Your task to perform on an android device: check google app version Image 0: 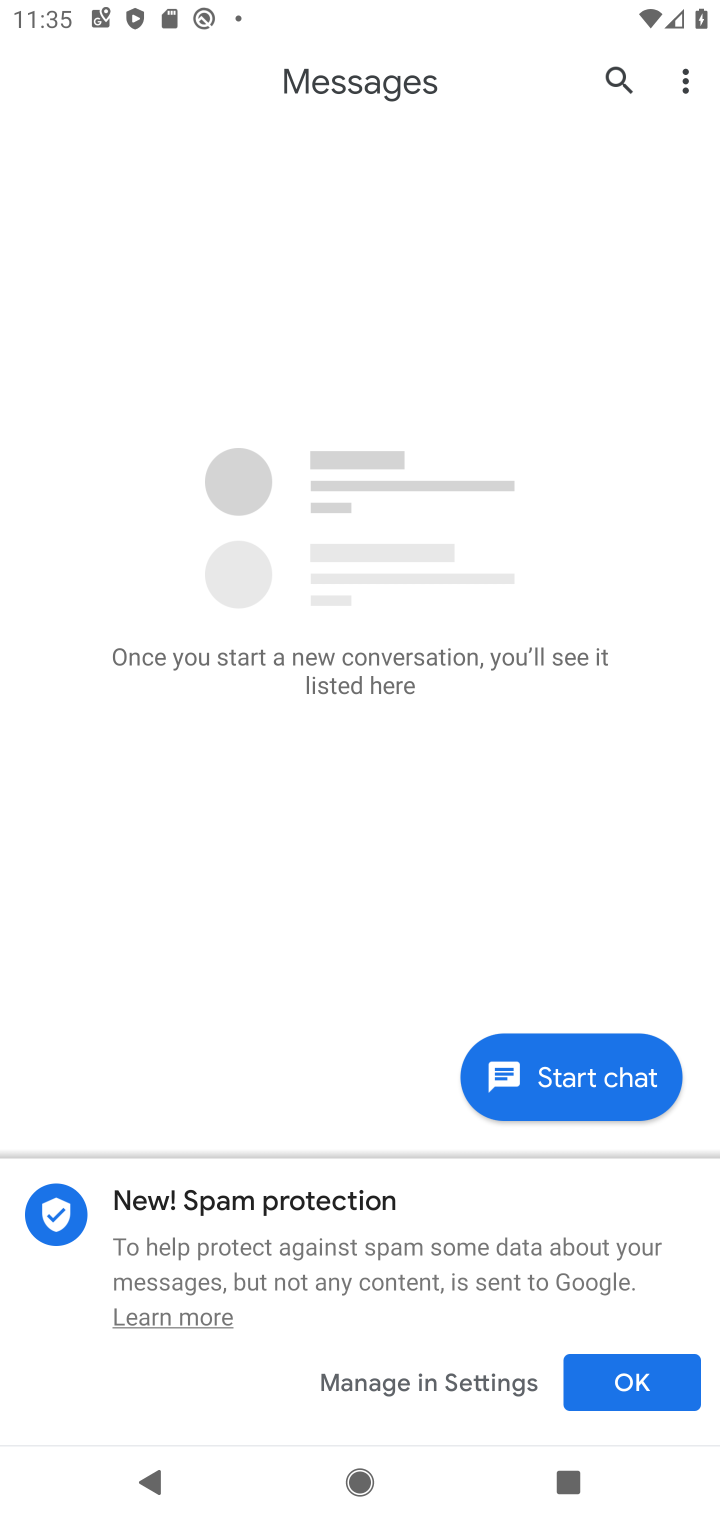
Step 0: press back button
Your task to perform on an android device: check google app version Image 1: 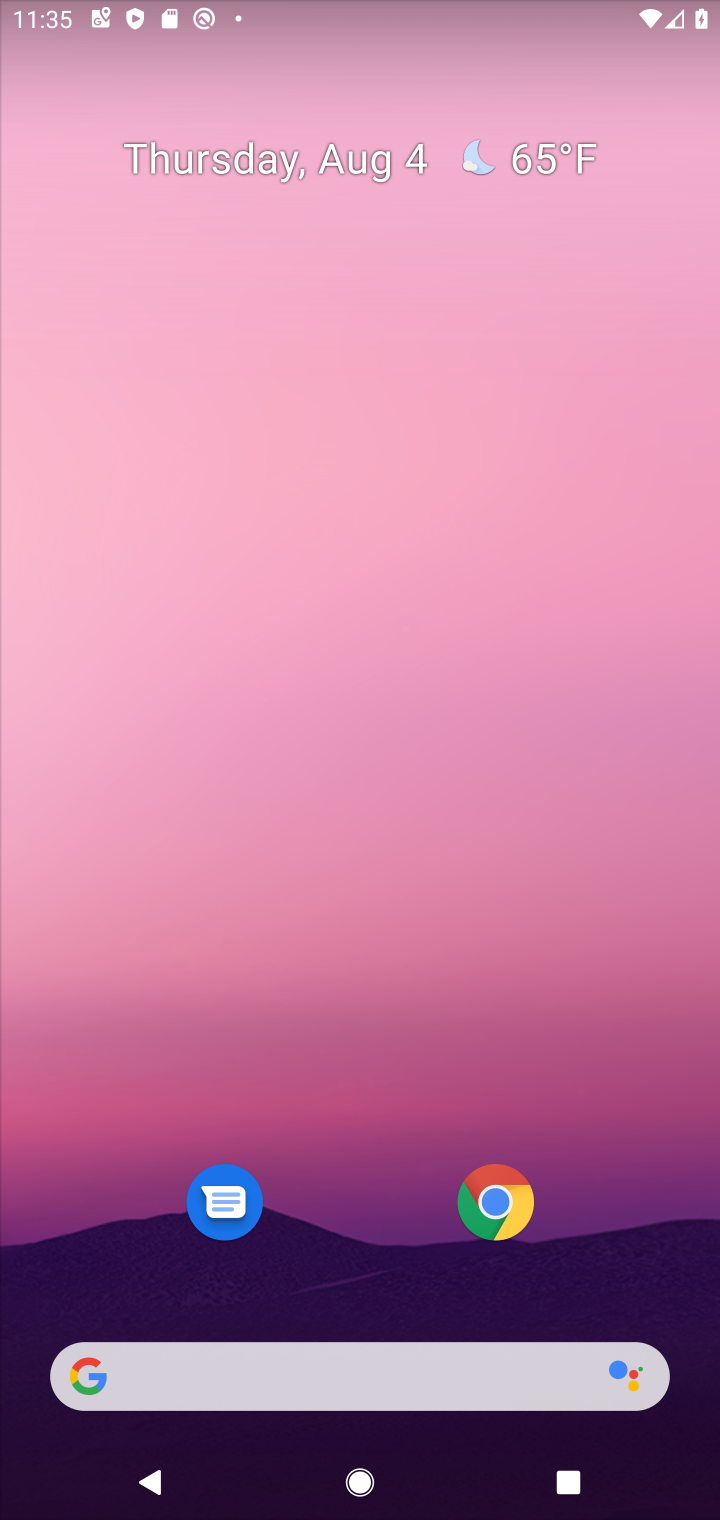
Step 1: press back button
Your task to perform on an android device: check google app version Image 2: 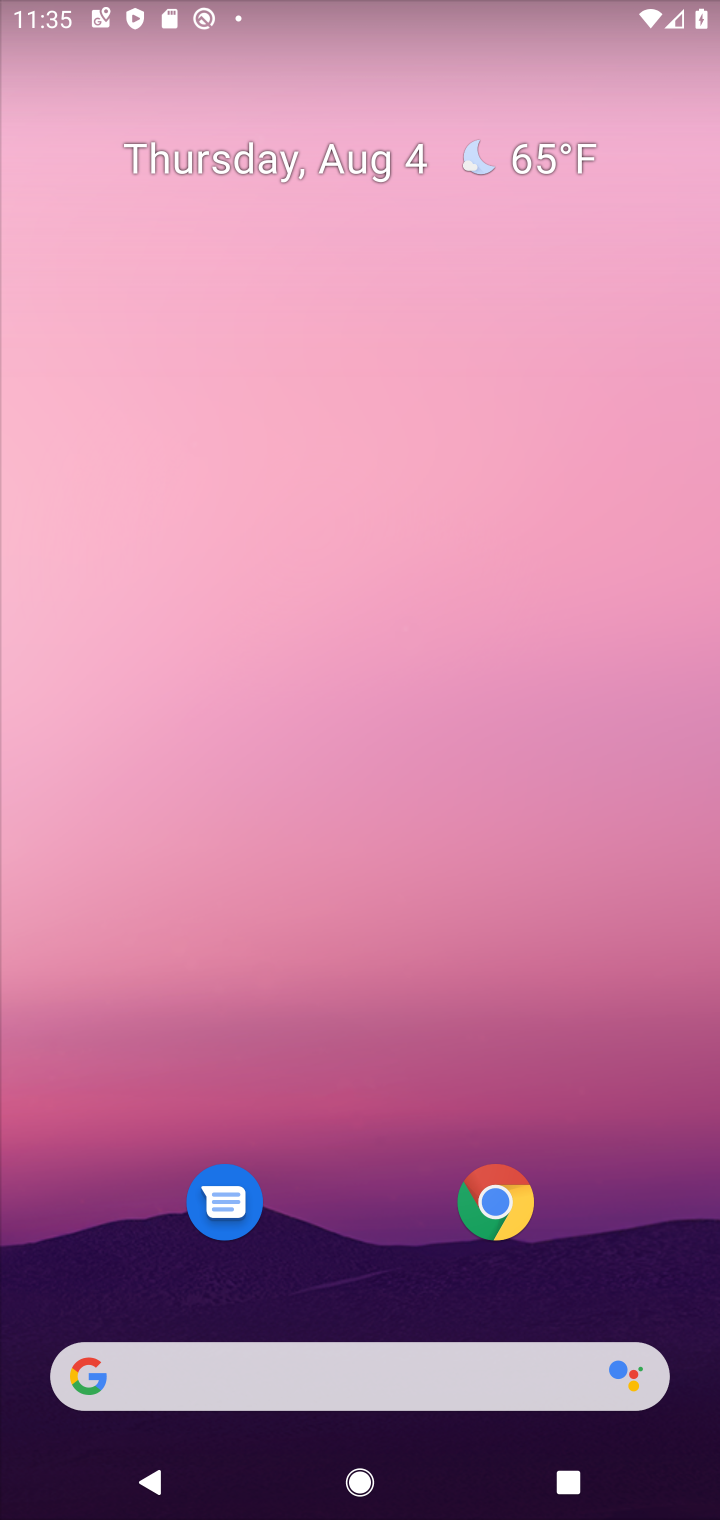
Step 2: drag from (362, 978) to (353, 39)
Your task to perform on an android device: check google app version Image 3: 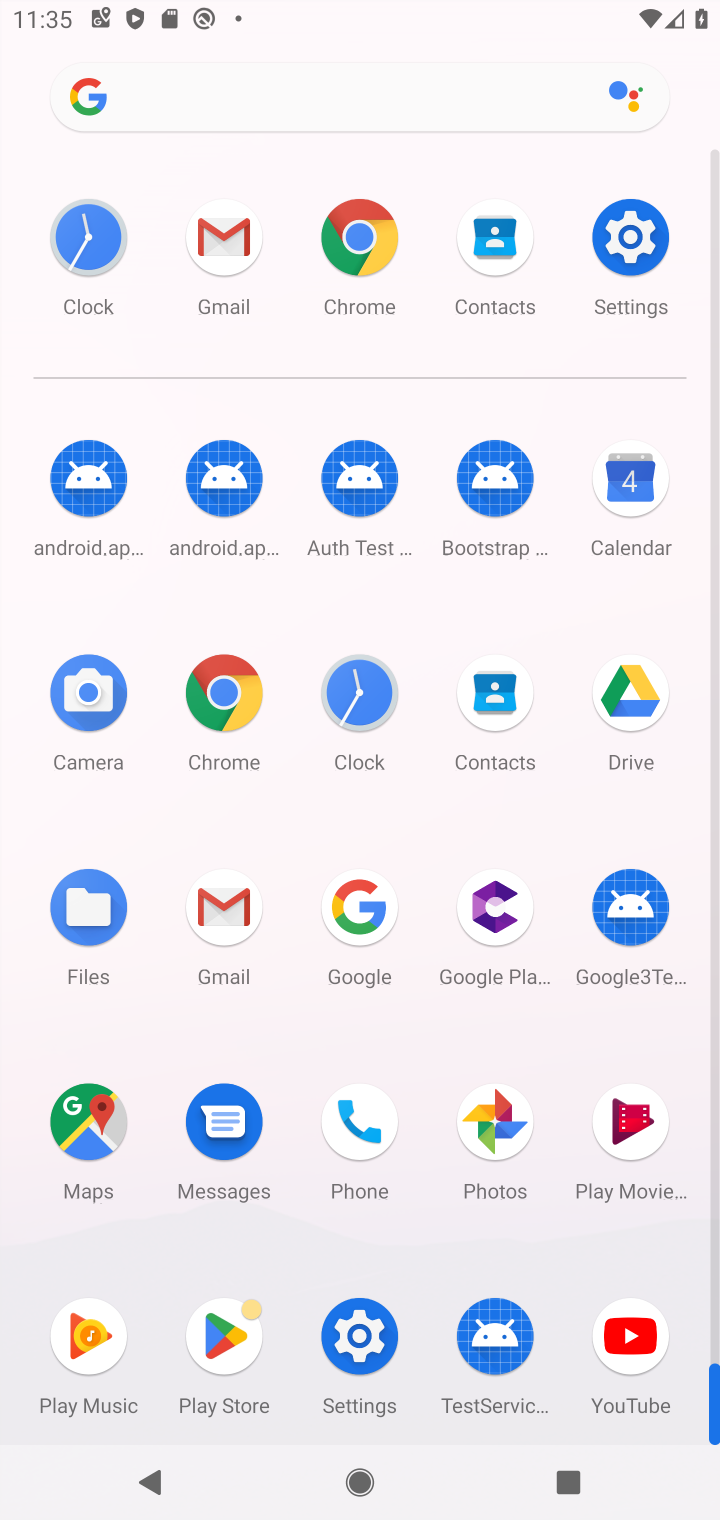
Step 3: click (351, 896)
Your task to perform on an android device: check google app version Image 4: 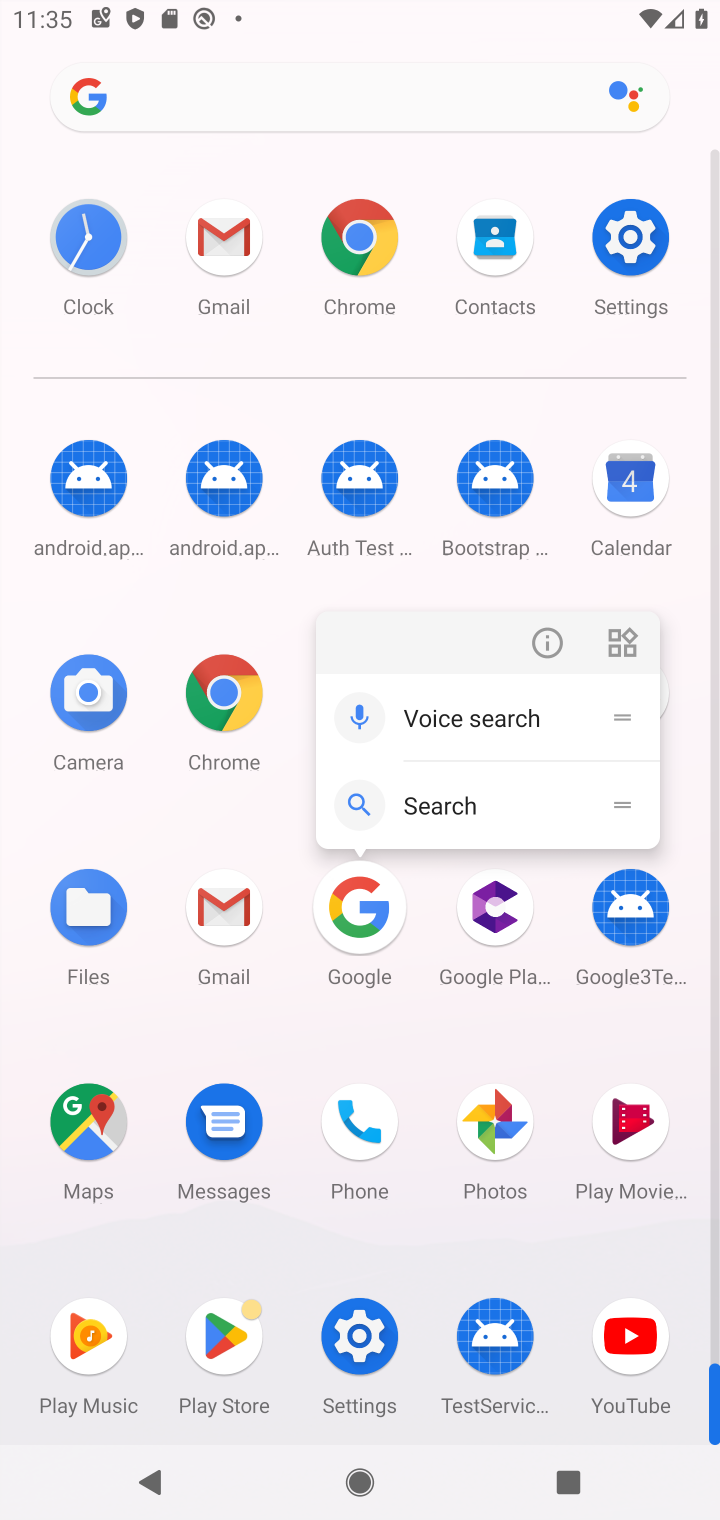
Step 4: click (558, 642)
Your task to perform on an android device: check google app version Image 5: 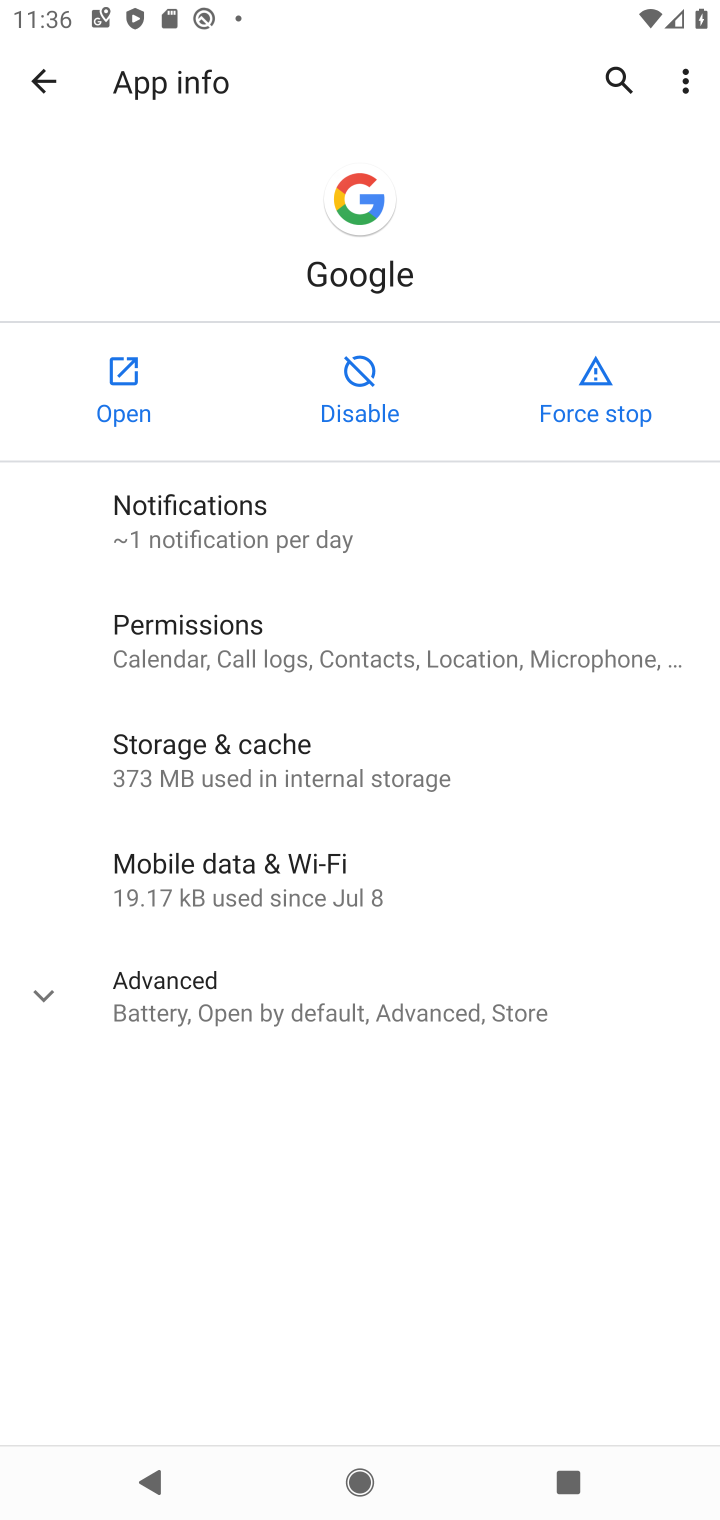
Step 5: click (303, 1000)
Your task to perform on an android device: check google app version Image 6: 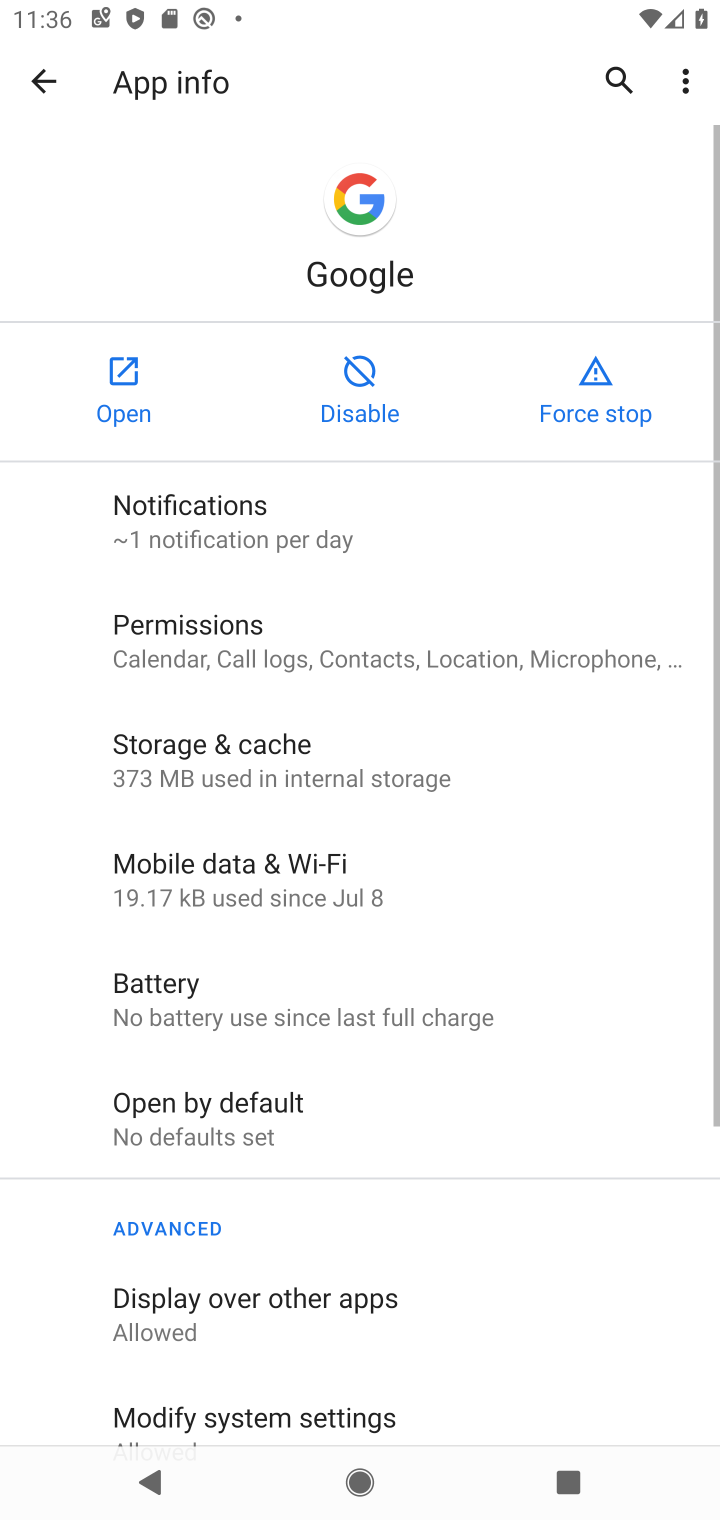
Step 6: task complete